Your task to perform on an android device: remove spam from my inbox in the gmail app Image 0: 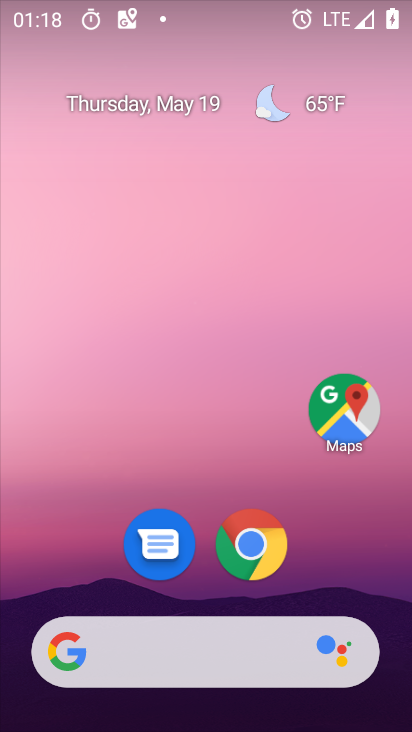
Step 0: drag from (357, 565) to (353, 169)
Your task to perform on an android device: remove spam from my inbox in the gmail app Image 1: 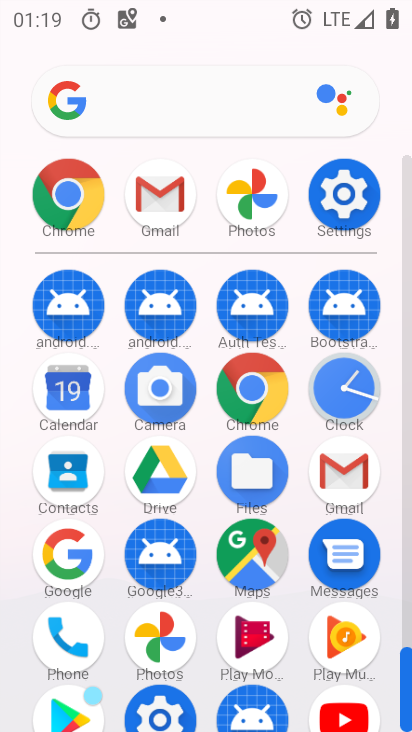
Step 1: click (343, 484)
Your task to perform on an android device: remove spam from my inbox in the gmail app Image 2: 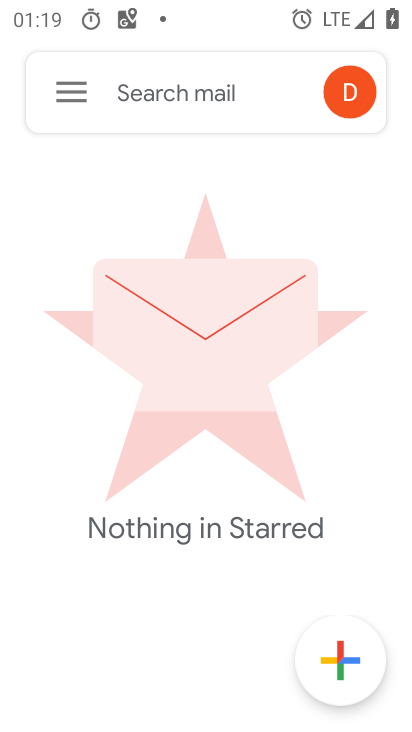
Step 2: click (69, 101)
Your task to perform on an android device: remove spam from my inbox in the gmail app Image 3: 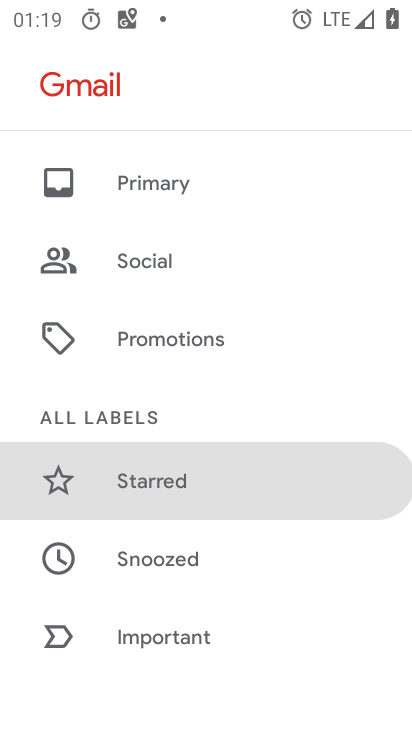
Step 3: drag from (268, 606) to (253, 309)
Your task to perform on an android device: remove spam from my inbox in the gmail app Image 4: 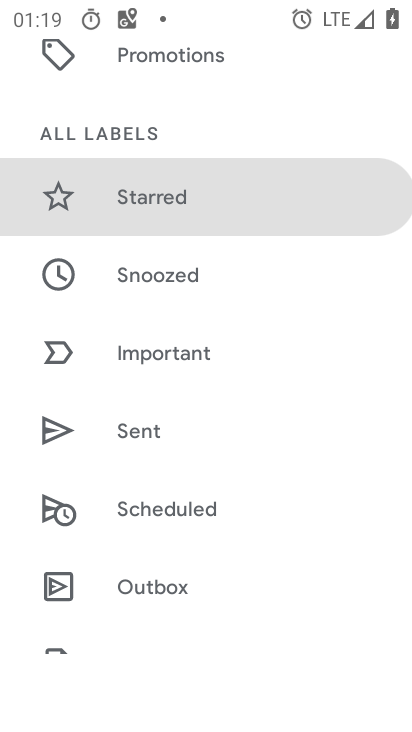
Step 4: drag from (275, 550) to (273, 315)
Your task to perform on an android device: remove spam from my inbox in the gmail app Image 5: 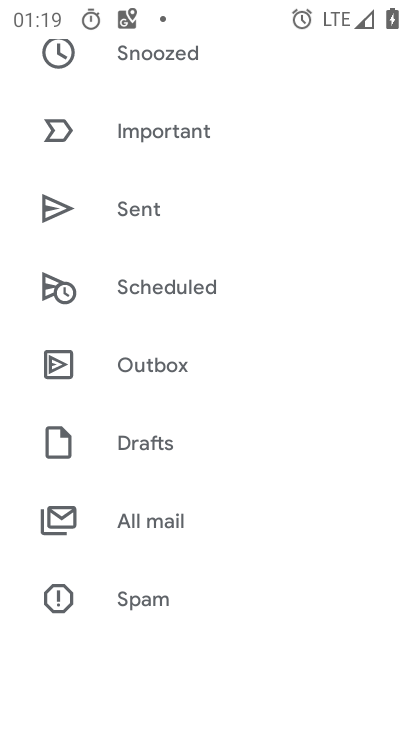
Step 5: drag from (268, 561) to (274, 322)
Your task to perform on an android device: remove spam from my inbox in the gmail app Image 6: 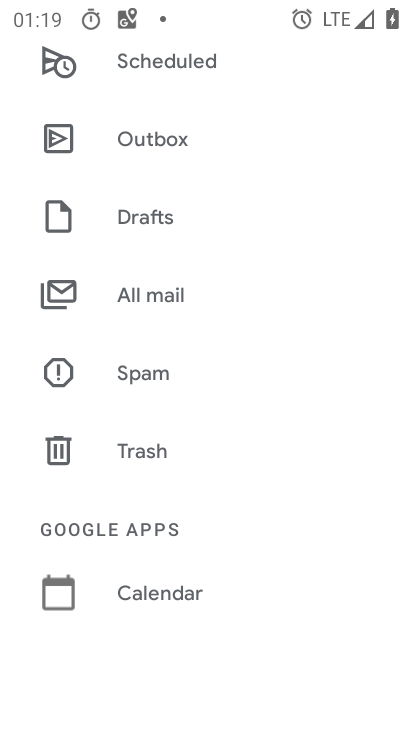
Step 6: drag from (270, 568) to (269, 367)
Your task to perform on an android device: remove spam from my inbox in the gmail app Image 7: 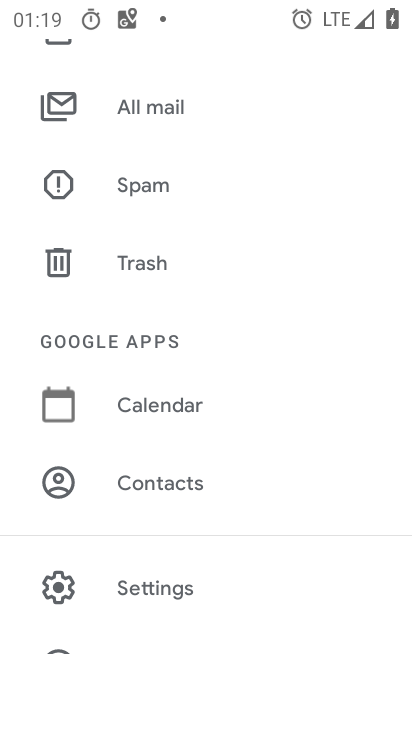
Step 7: drag from (251, 578) to (278, 342)
Your task to perform on an android device: remove spam from my inbox in the gmail app Image 8: 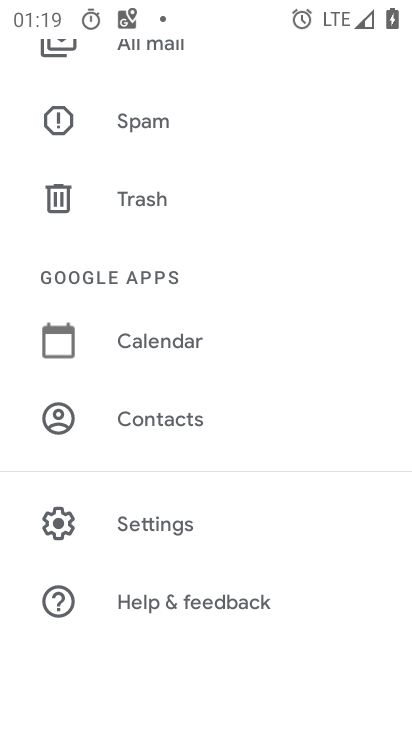
Step 8: drag from (282, 313) to (276, 485)
Your task to perform on an android device: remove spam from my inbox in the gmail app Image 9: 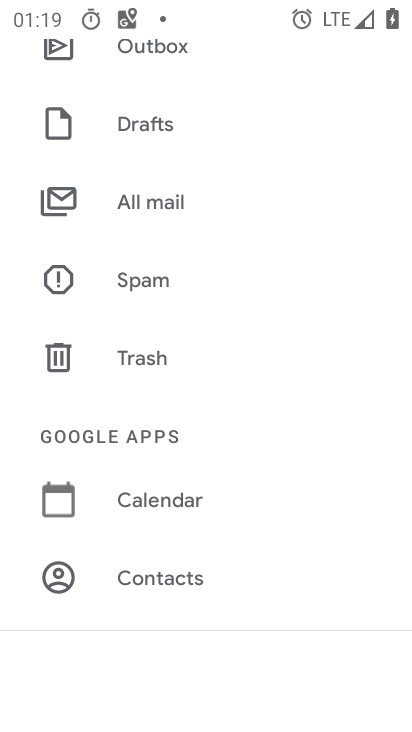
Step 9: drag from (254, 304) to (252, 468)
Your task to perform on an android device: remove spam from my inbox in the gmail app Image 10: 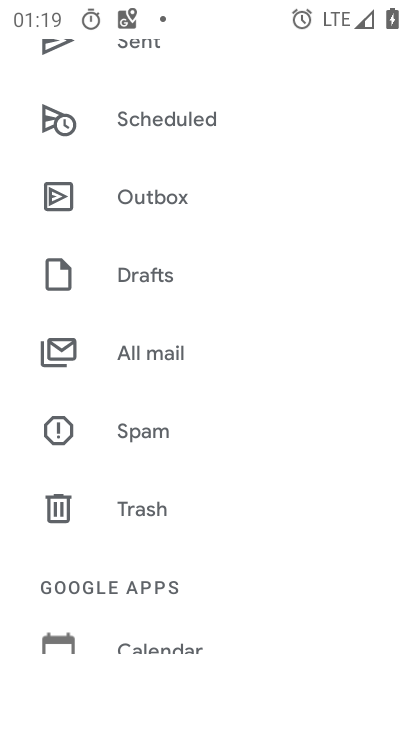
Step 10: click (164, 443)
Your task to perform on an android device: remove spam from my inbox in the gmail app Image 11: 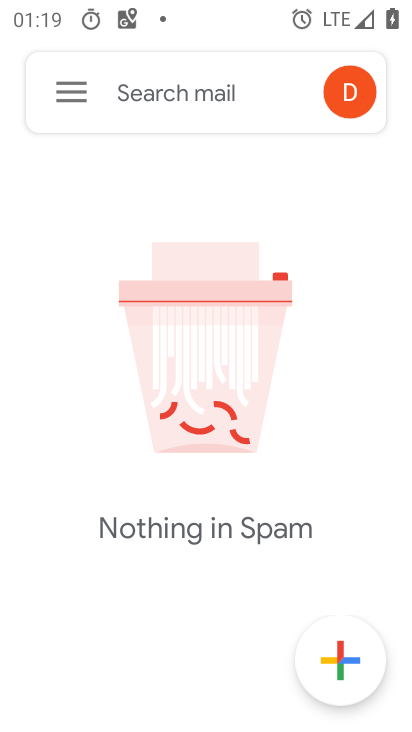
Step 11: task complete